Your task to perform on an android device: move a message to another label in the gmail app Image 0: 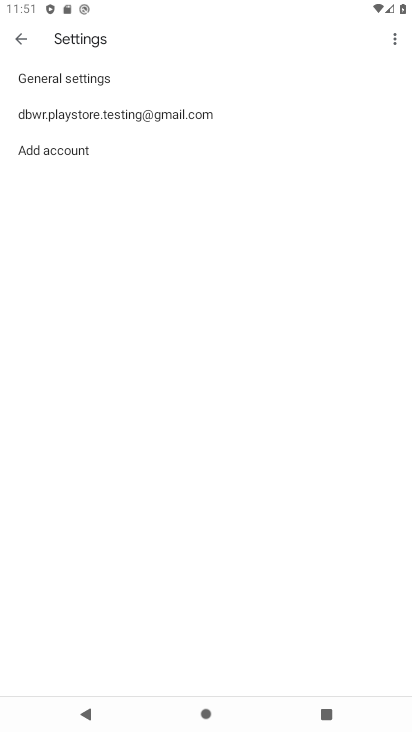
Step 0: press back button
Your task to perform on an android device: move a message to another label in the gmail app Image 1: 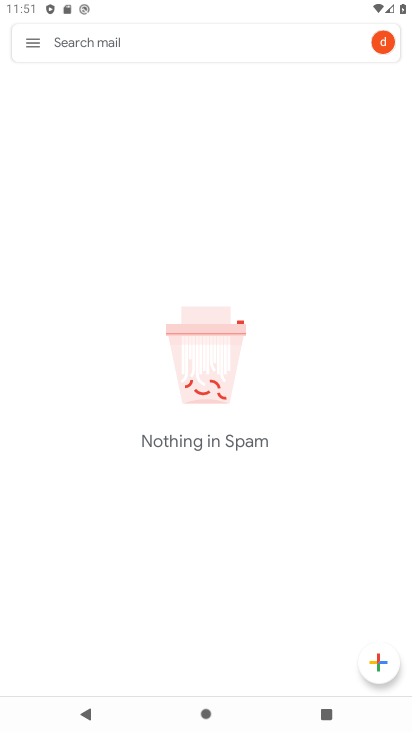
Step 1: click (30, 33)
Your task to perform on an android device: move a message to another label in the gmail app Image 2: 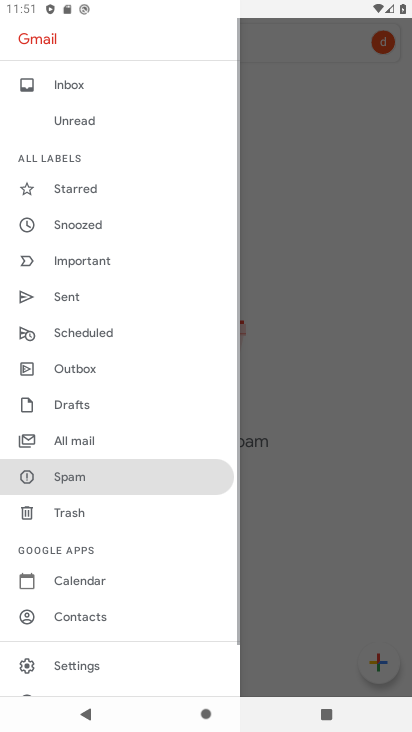
Step 2: drag from (146, 172) to (146, 577)
Your task to perform on an android device: move a message to another label in the gmail app Image 3: 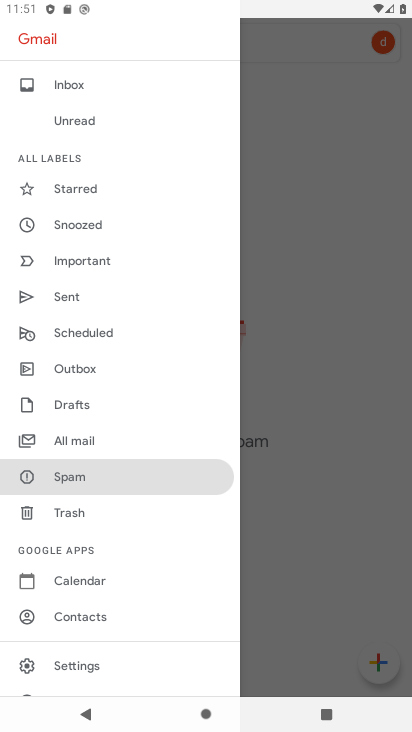
Step 3: click (105, 440)
Your task to perform on an android device: move a message to another label in the gmail app Image 4: 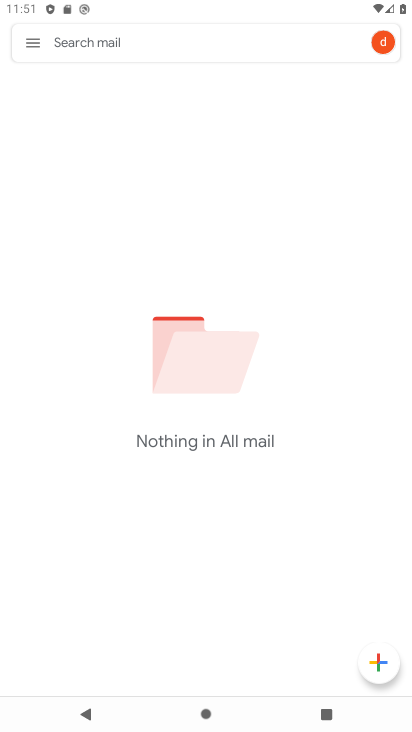
Step 4: drag from (260, 534) to (258, 140)
Your task to perform on an android device: move a message to another label in the gmail app Image 5: 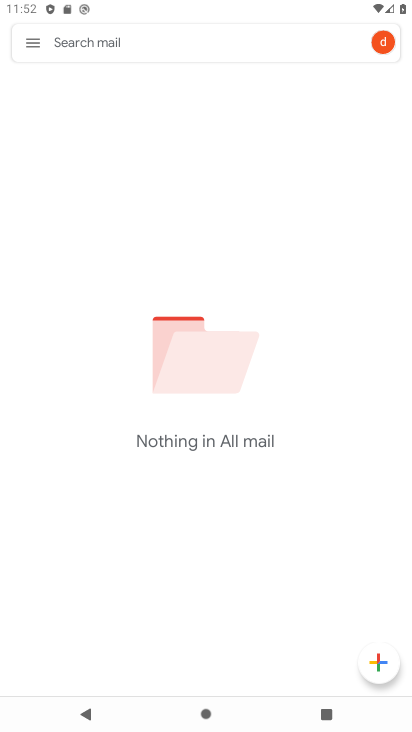
Step 5: click (40, 46)
Your task to perform on an android device: move a message to another label in the gmail app Image 6: 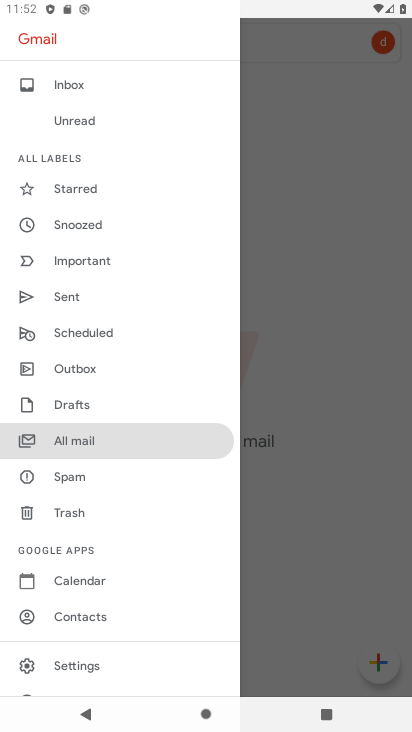
Step 6: click (118, 441)
Your task to perform on an android device: move a message to another label in the gmail app Image 7: 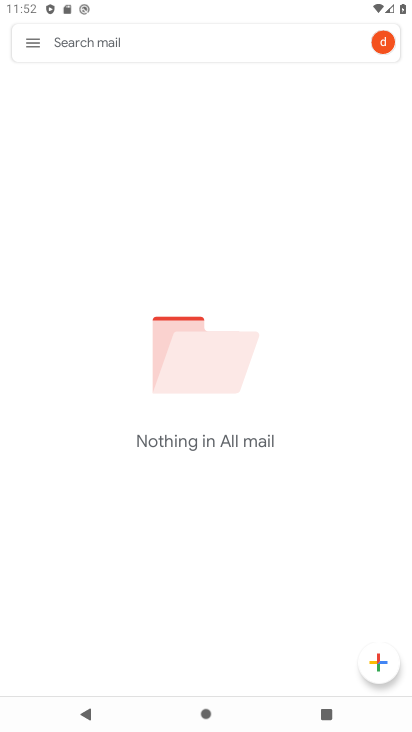
Step 7: task complete